Your task to perform on an android device: find snoozed emails in the gmail app Image 0: 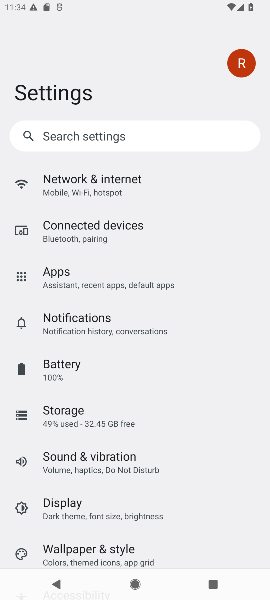
Step 0: press home button
Your task to perform on an android device: find snoozed emails in the gmail app Image 1: 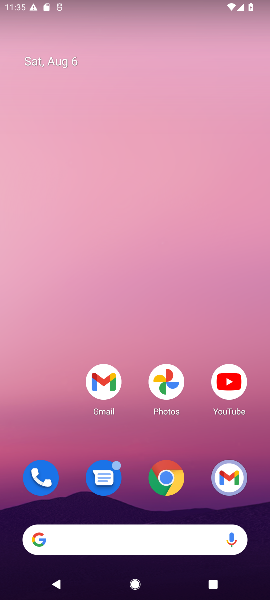
Step 1: drag from (117, 522) to (182, 168)
Your task to perform on an android device: find snoozed emails in the gmail app Image 2: 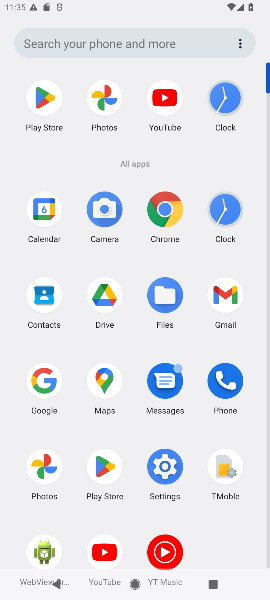
Step 2: click (231, 308)
Your task to perform on an android device: find snoozed emails in the gmail app Image 3: 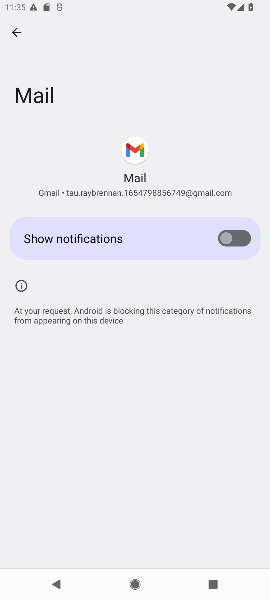
Step 3: click (22, 37)
Your task to perform on an android device: find snoozed emails in the gmail app Image 4: 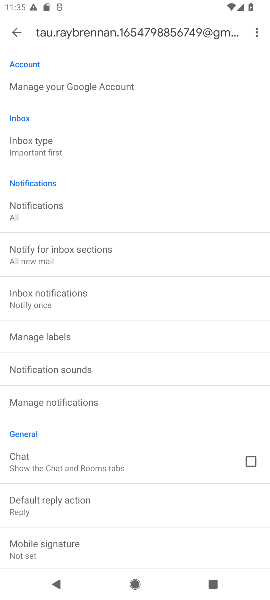
Step 4: click (19, 39)
Your task to perform on an android device: find snoozed emails in the gmail app Image 5: 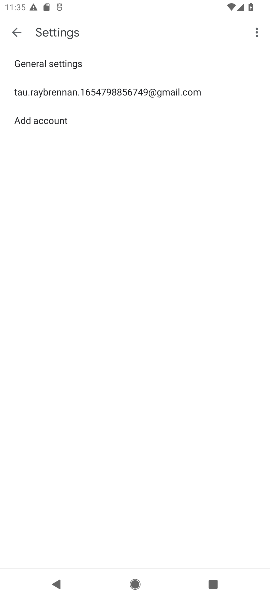
Step 5: click (17, 39)
Your task to perform on an android device: find snoozed emails in the gmail app Image 6: 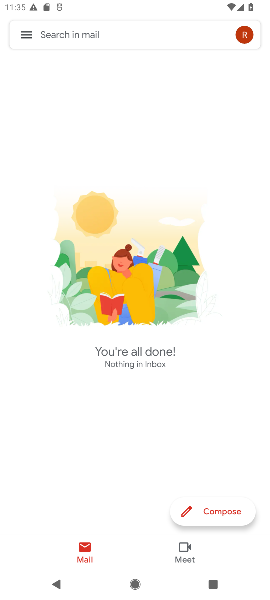
Step 6: click (22, 35)
Your task to perform on an android device: find snoozed emails in the gmail app Image 7: 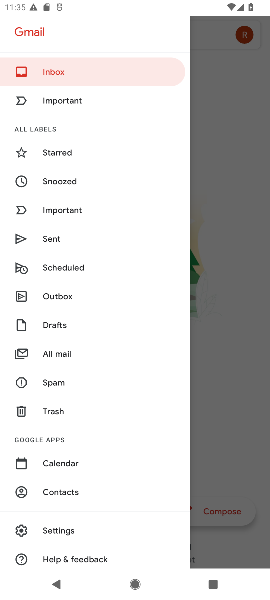
Step 7: click (78, 171)
Your task to perform on an android device: find snoozed emails in the gmail app Image 8: 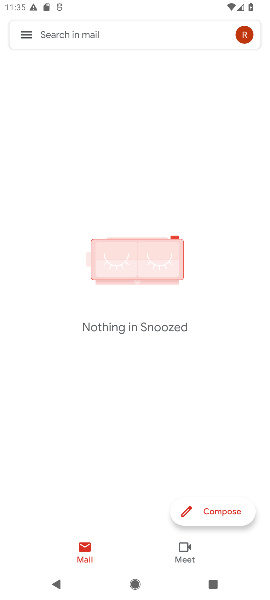
Step 8: task complete